Your task to perform on an android device: Go to notification settings Image 0: 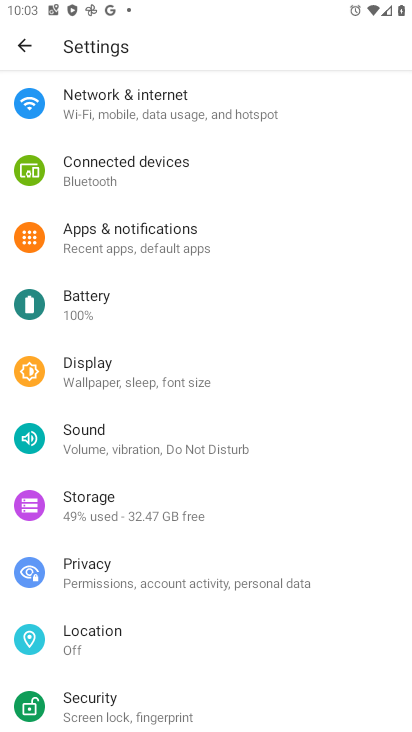
Step 0: press home button
Your task to perform on an android device: Go to notification settings Image 1: 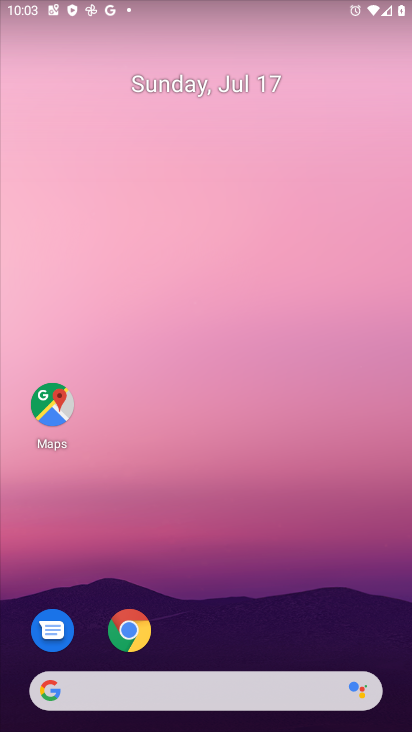
Step 1: drag from (209, 641) to (177, 191)
Your task to perform on an android device: Go to notification settings Image 2: 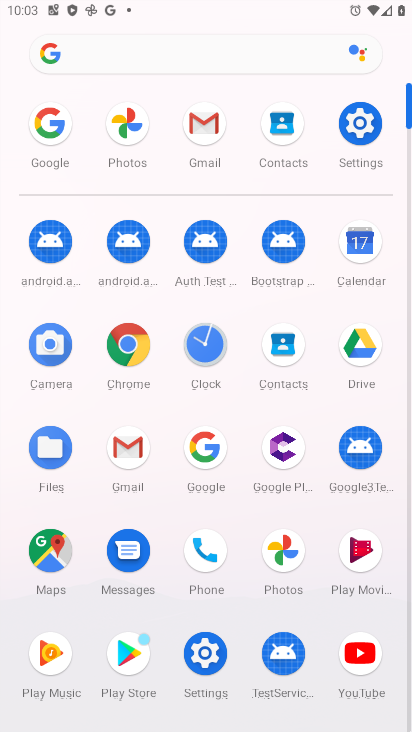
Step 2: click (365, 117)
Your task to perform on an android device: Go to notification settings Image 3: 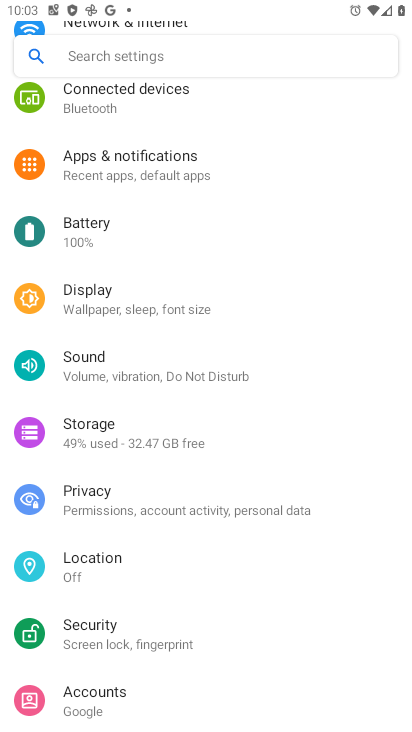
Step 3: click (152, 163)
Your task to perform on an android device: Go to notification settings Image 4: 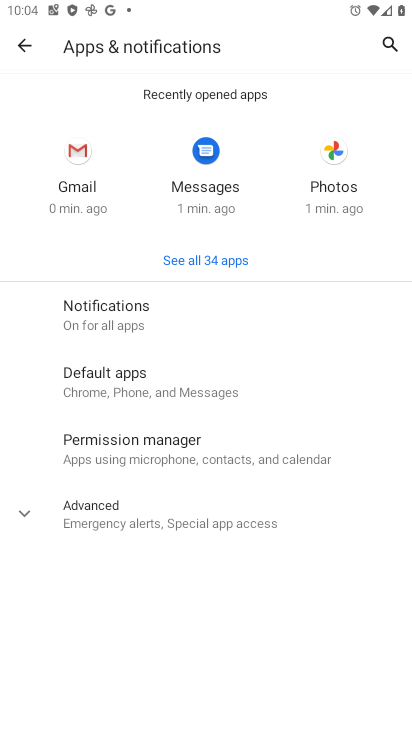
Step 4: task complete